Your task to perform on an android device: check the backup settings in the google photos Image 0: 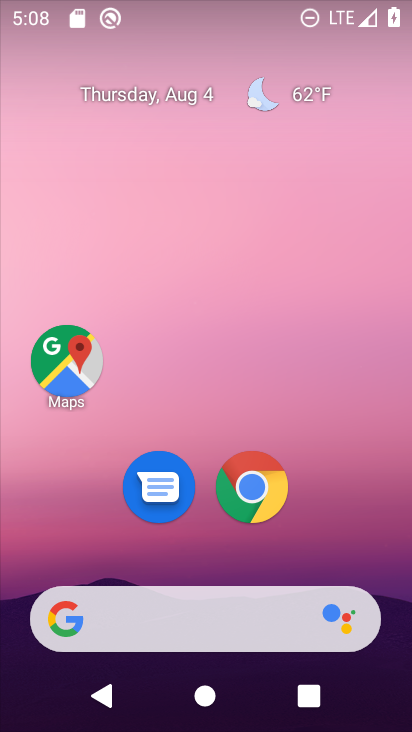
Step 0: drag from (196, 413) to (249, 0)
Your task to perform on an android device: check the backup settings in the google photos Image 1: 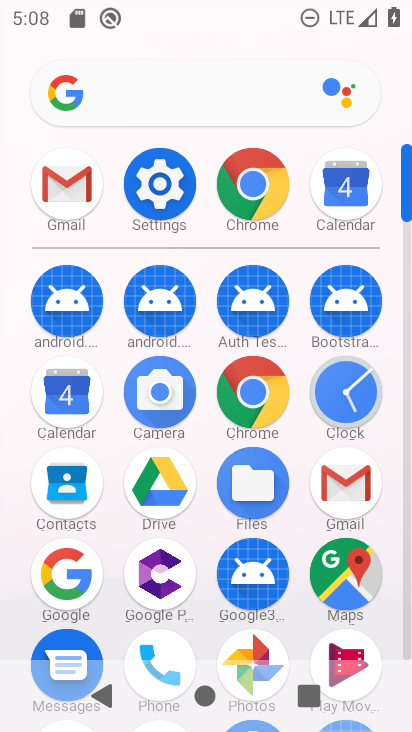
Step 1: click (253, 647)
Your task to perform on an android device: check the backup settings in the google photos Image 2: 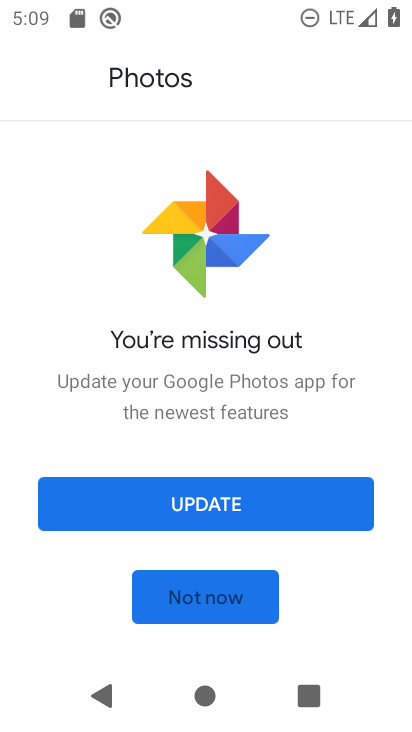
Step 2: click (206, 594)
Your task to perform on an android device: check the backup settings in the google photos Image 3: 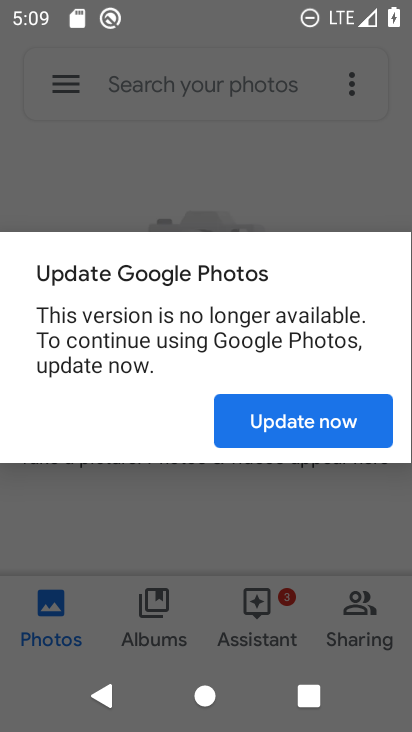
Step 3: press home button
Your task to perform on an android device: check the backup settings in the google photos Image 4: 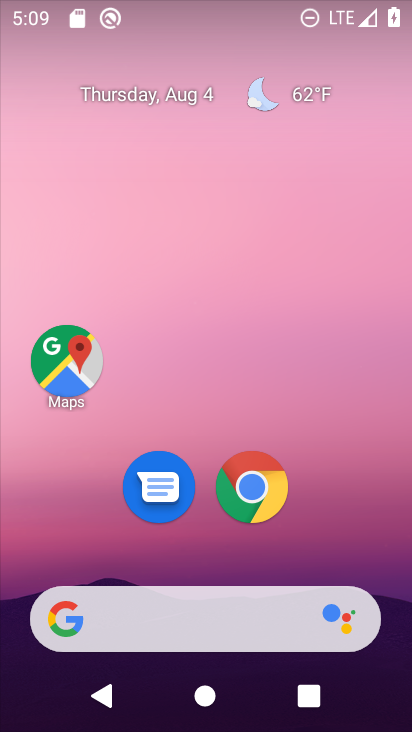
Step 4: drag from (112, 580) to (234, 80)
Your task to perform on an android device: check the backup settings in the google photos Image 5: 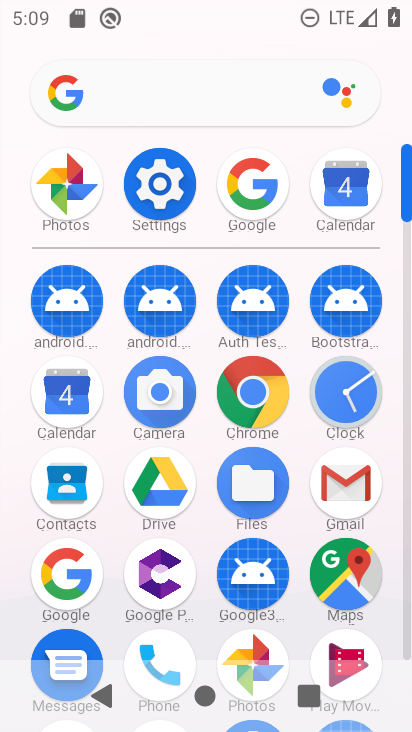
Step 5: click (243, 645)
Your task to perform on an android device: check the backup settings in the google photos Image 6: 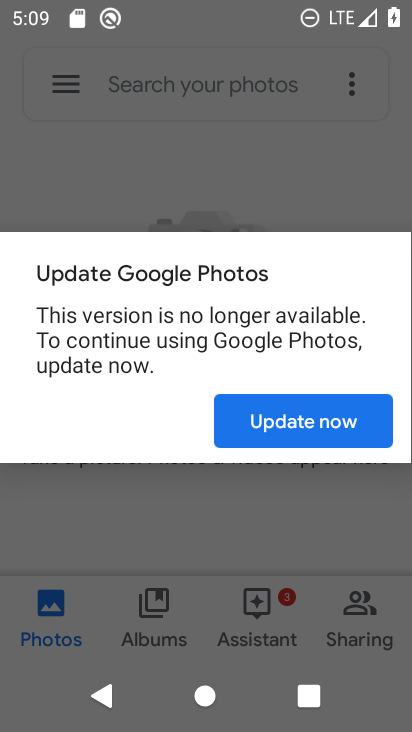
Step 6: click (296, 421)
Your task to perform on an android device: check the backup settings in the google photos Image 7: 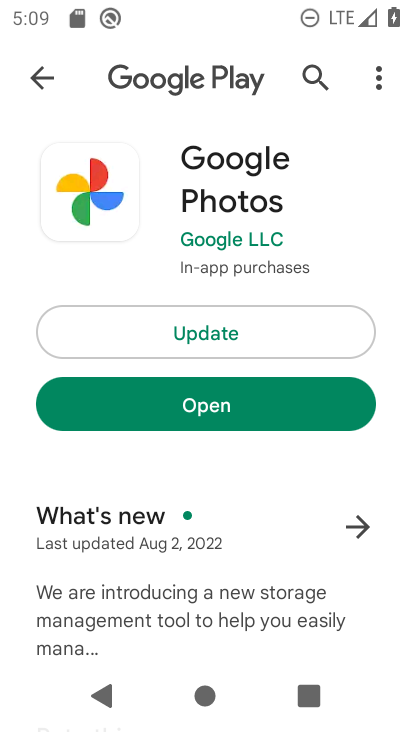
Step 7: click (240, 412)
Your task to perform on an android device: check the backup settings in the google photos Image 8: 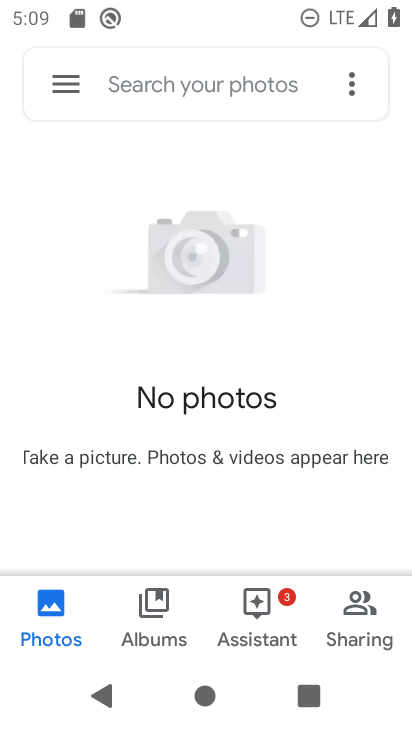
Step 8: click (53, 74)
Your task to perform on an android device: check the backup settings in the google photos Image 9: 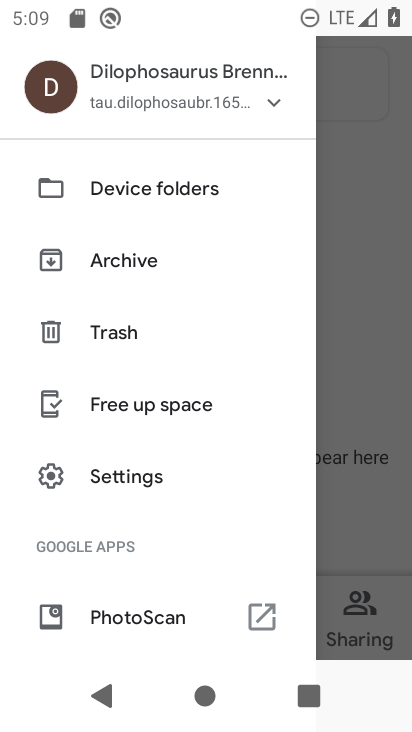
Step 9: click (130, 479)
Your task to perform on an android device: check the backup settings in the google photos Image 10: 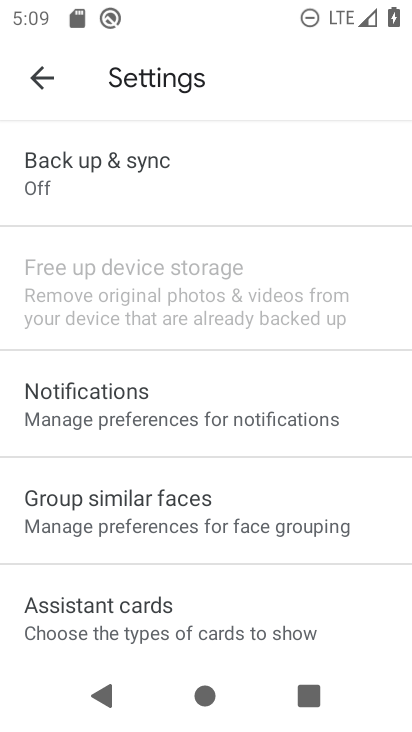
Step 10: click (145, 175)
Your task to perform on an android device: check the backup settings in the google photos Image 11: 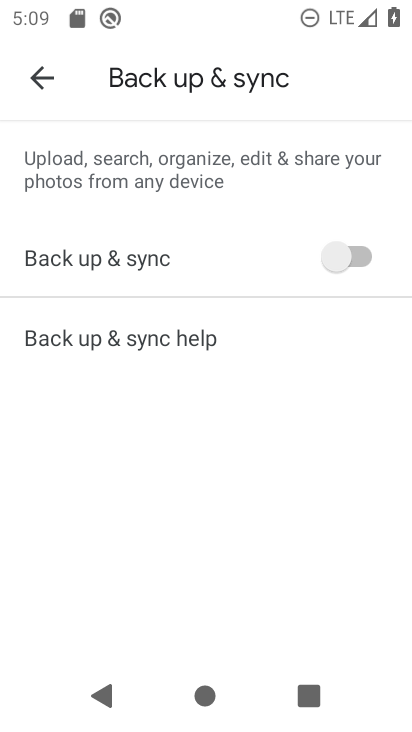
Step 11: task complete